Your task to perform on an android device: manage bookmarks in the chrome app Image 0: 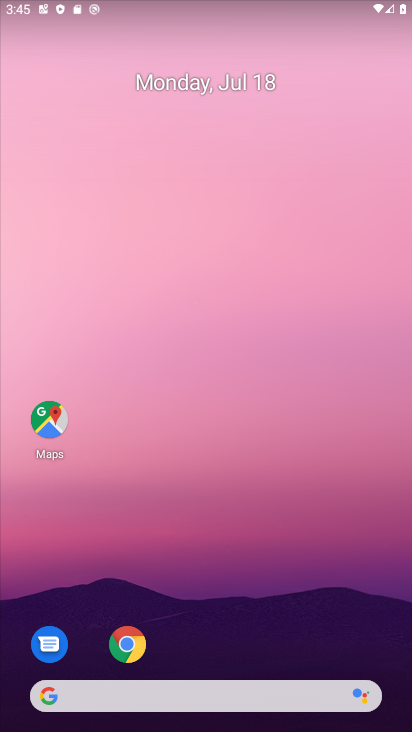
Step 0: click (127, 643)
Your task to perform on an android device: manage bookmarks in the chrome app Image 1: 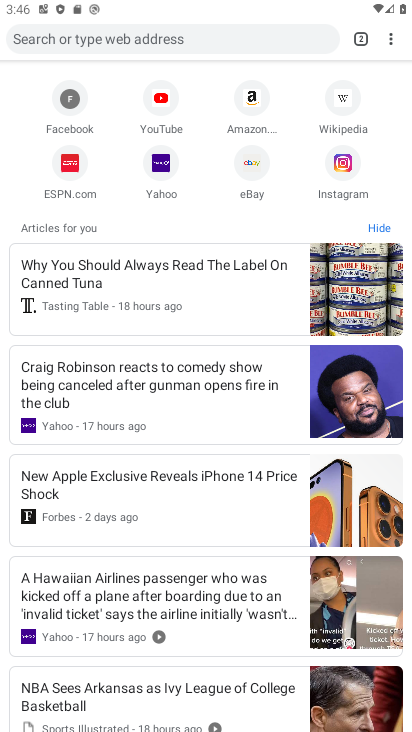
Step 1: click (389, 41)
Your task to perform on an android device: manage bookmarks in the chrome app Image 2: 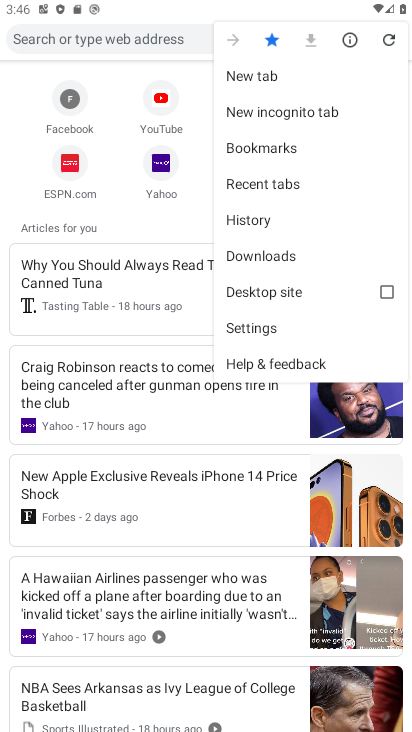
Step 2: click (254, 140)
Your task to perform on an android device: manage bookmarks in the chrome app Image 3: 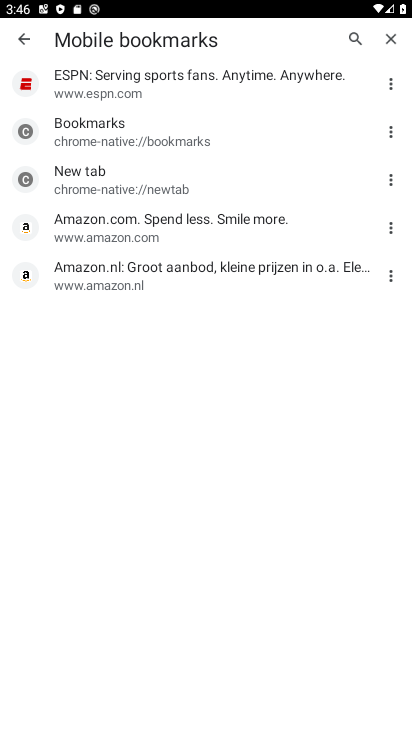
Step 3: click (90, 271)
Your task to perform on an android device: manage bookmarks in the chrome app Image 4: 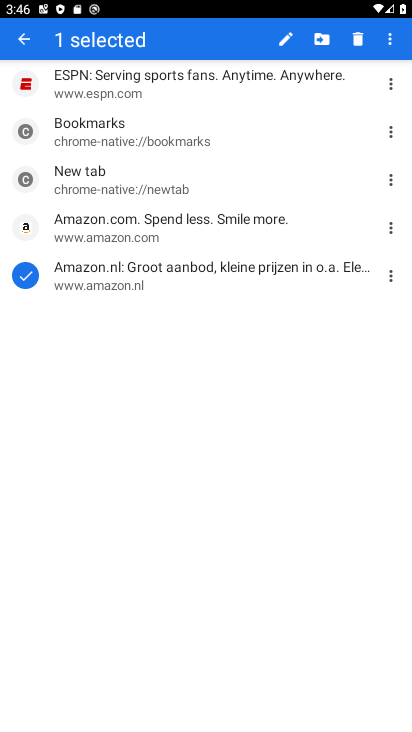
Step 4: click (319, 40)
Your task to perform on an android device: manage bookmarks in the chrome app Image 5: 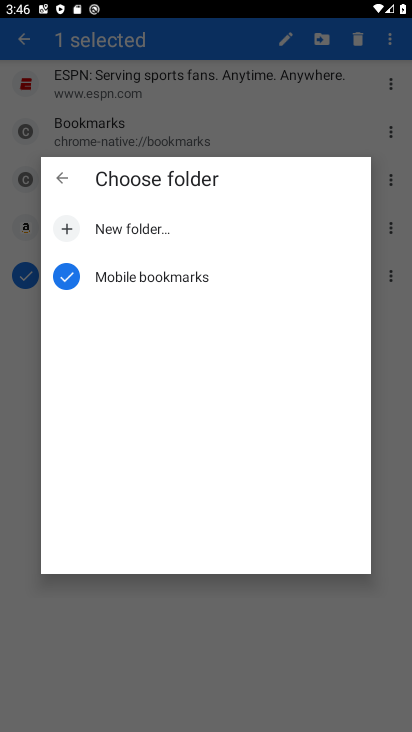
Step 5: click (65, 228)
Your task to perform on an android device: manage bookmarks in the chrome app Image 6: 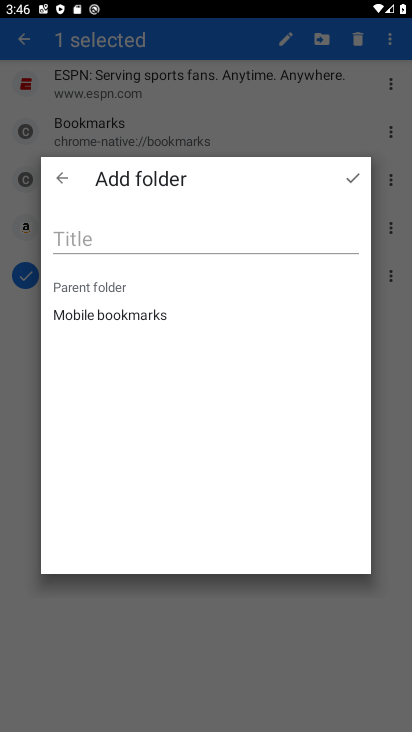
Step 6: click (114, 233)
Your task to perform on an android device: manage bookmarks in the chrome app Image 7: 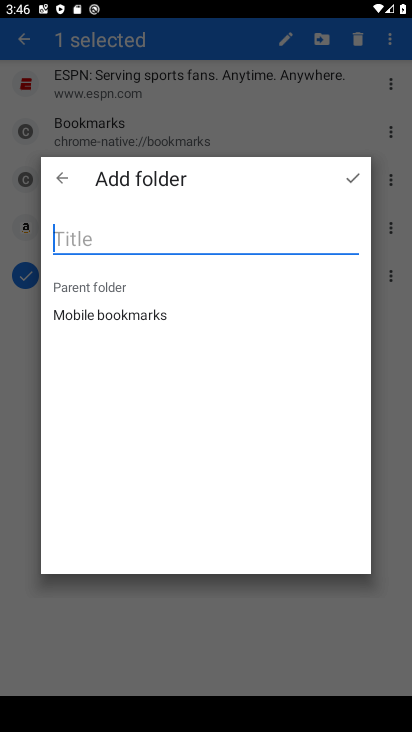
Step 7: type "iuyh"
Your task to perform on an android device: manage bookmarks in the chrome app Image 8: 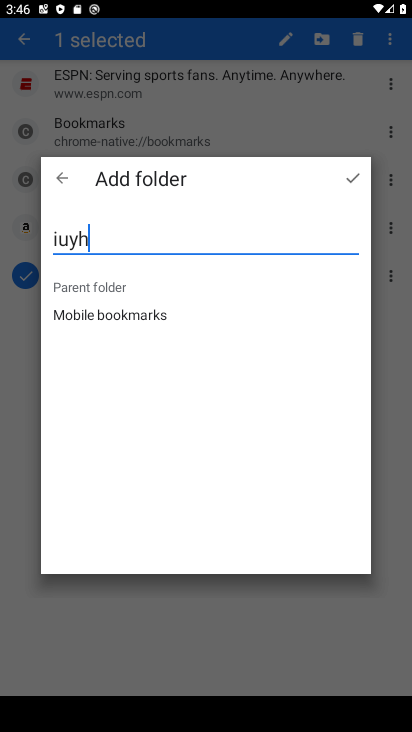
Step 8: click (348, 176)
Your task to perform on an android device: manage bookmarks in the chrome app Image 9: 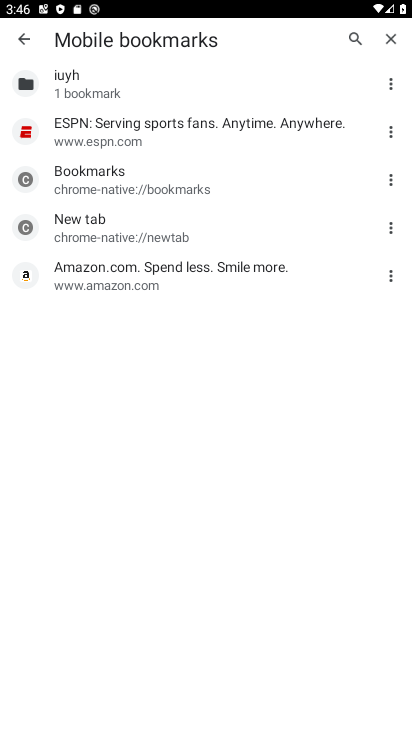
Step 9: task complete